Your task to perform on an android device: open chrome privacy settings Image 0: 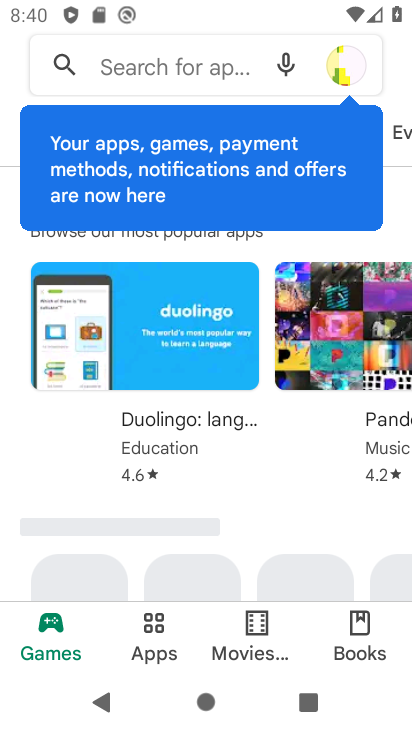
Step 0: press home button
Your task to perform on an android device: open chrome privacy settings Image 1: 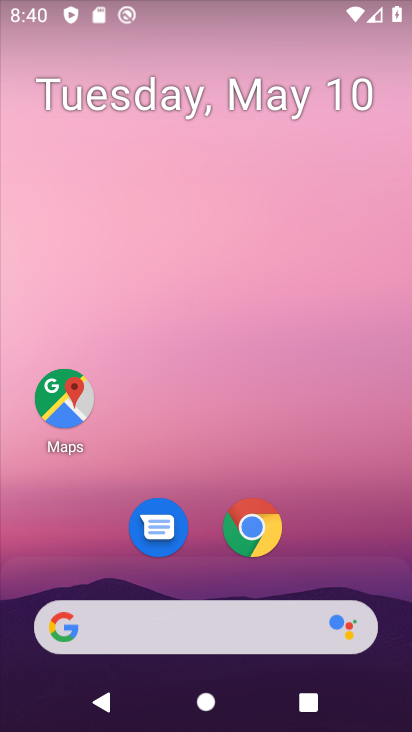
Step 1: click (266, 522)
Your task to perform on an android device: open chrome privacy settings Image 2: 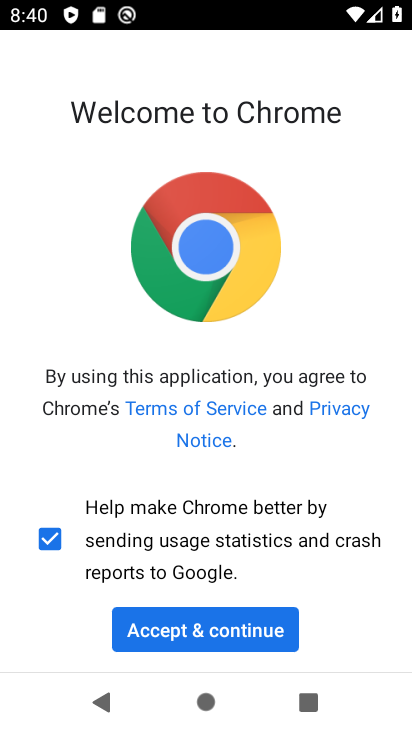
Step 2: click (260, 620)
Your task to perform on an android device: open chrome privacy settings Image 3: 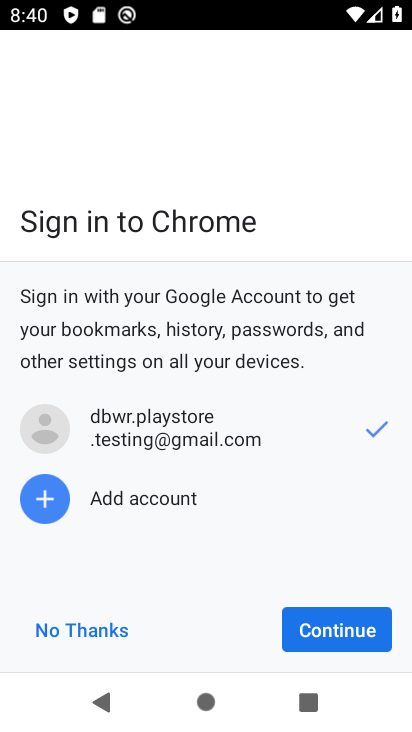
Step 3: click (331, 633)
Your task to perform on an android device: open chrome privacy settings Image 4: 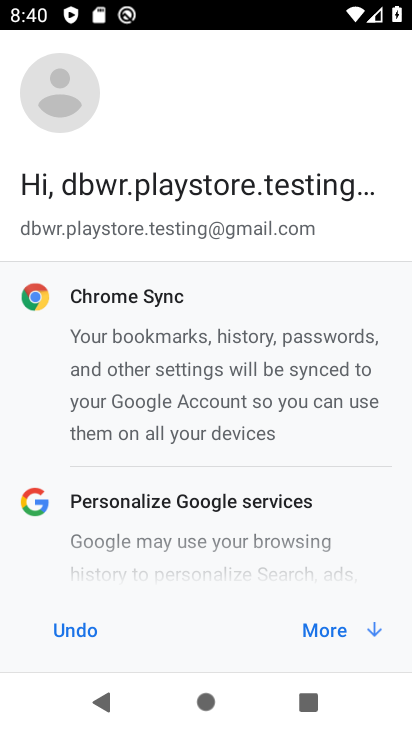
Step 4: click (331, 633)
Your task to perform on an android device: open chrome privacy settings Image 5: 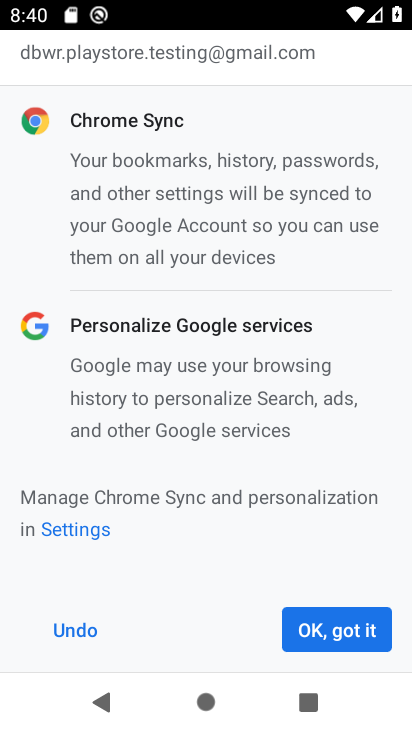
Step 5: click (331, 633)
Your task to perform on an android device: open chrome privacy settings Image 6: 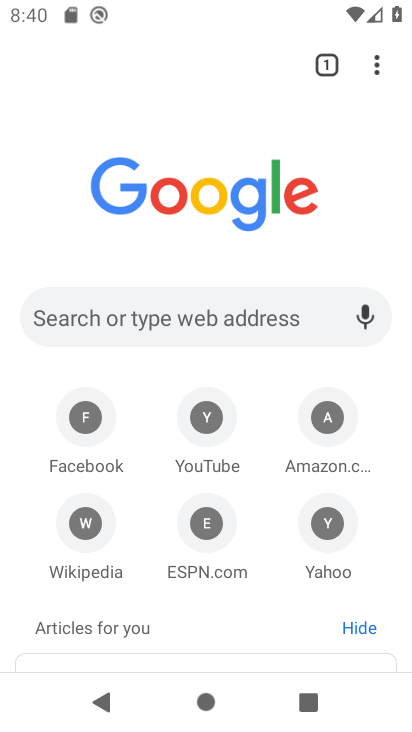
Step 6: drag from (379, 62) to (173, 544)
Your task to perform on an android device: open chrome privacy settings Image 7: 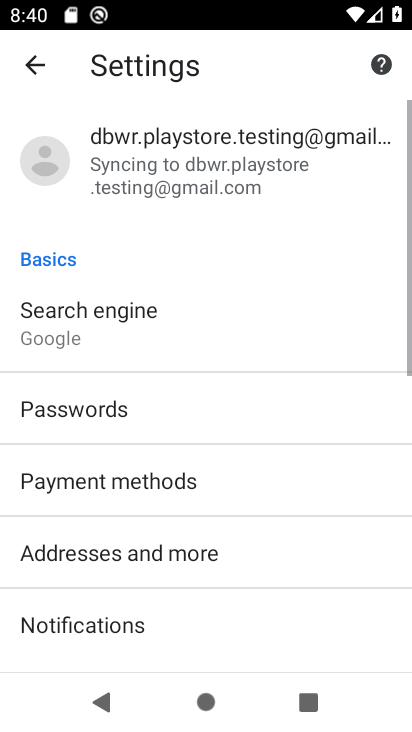
Step 7: drag from (304, 605) to (234, 197)
Your task to perform on an android device: open chrome privacy settings Image 8: 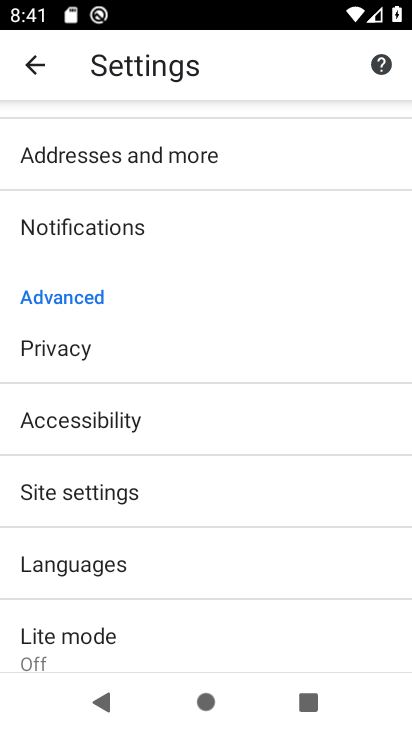
Step 8: click (37, 351)
Your task to perform on an android device: open chrome privacy settings Image 9: 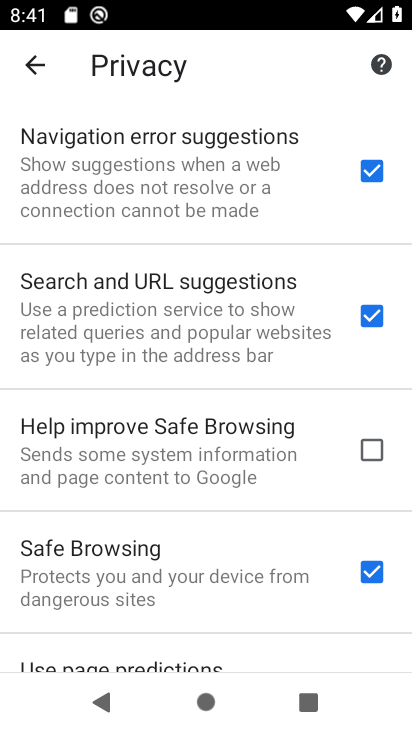
Step 9: task complete